Your task to perform on an android device: Open maps Image 0: 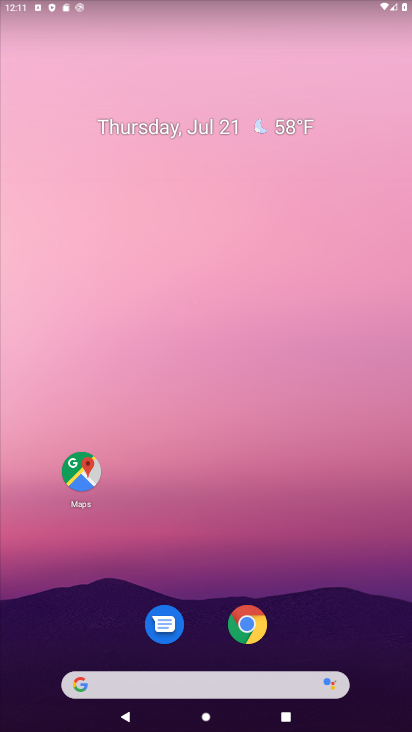
Step 0: click (90, 464)
Your task to perform on an android device: Open maps Image 1: 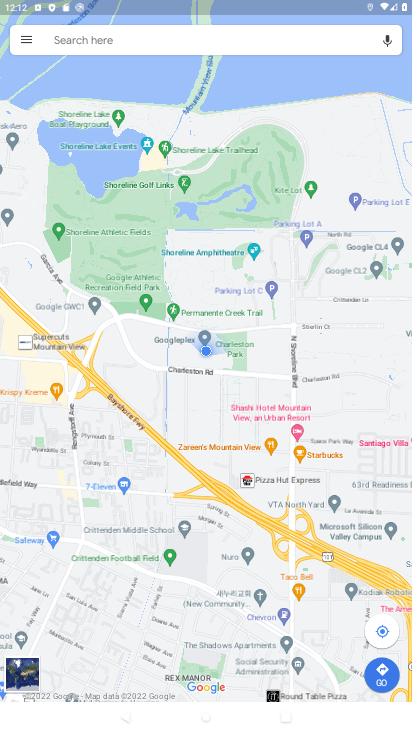
Step 1: task complete